Your task to perform on an android device: Is it going to rain tomorrow? Image 0: 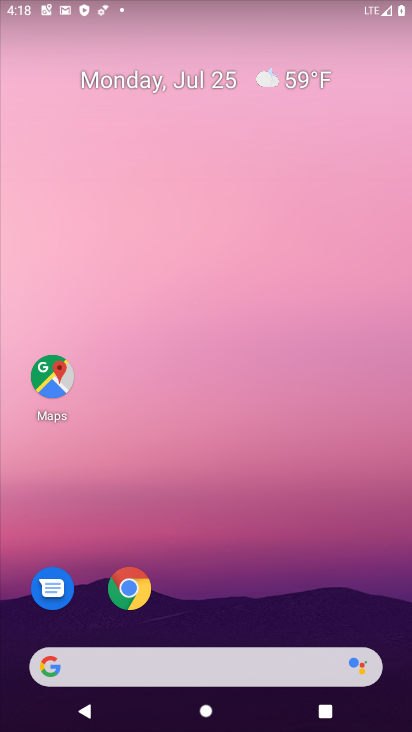
Step 0: click (131, 570)
Your task to perform on an android device: Is it going to rain tomorrow? Image 1: 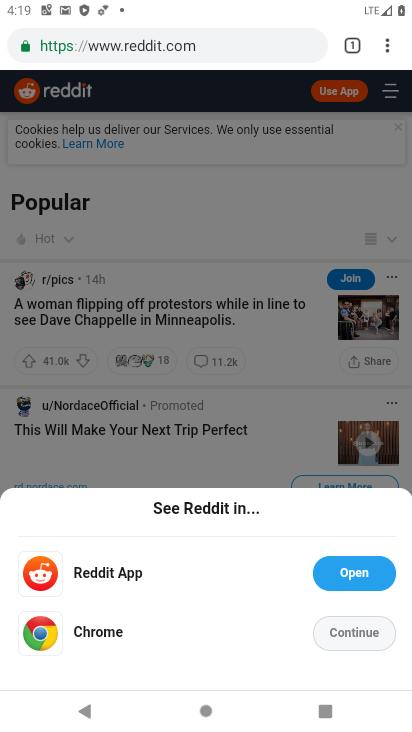
Step 1: click (170, 45)
Your task to perform on an android device: Is it going to rain tomorrow? Image 2: 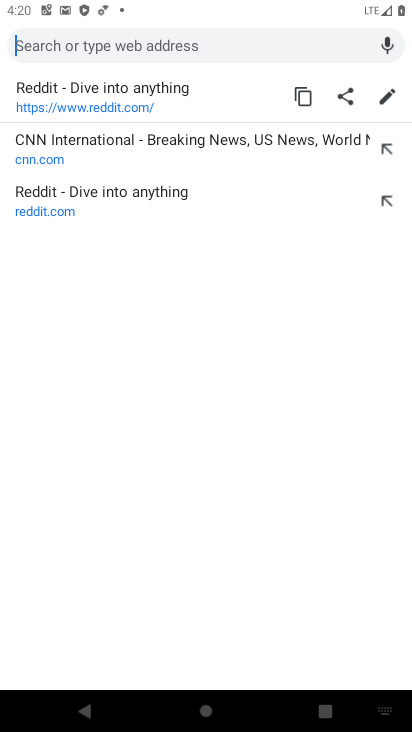
Step 2: type "Is it going to rain tomorrow?"
Your task to perform on an android device: Is it going to rain tomorrow? Image 3: 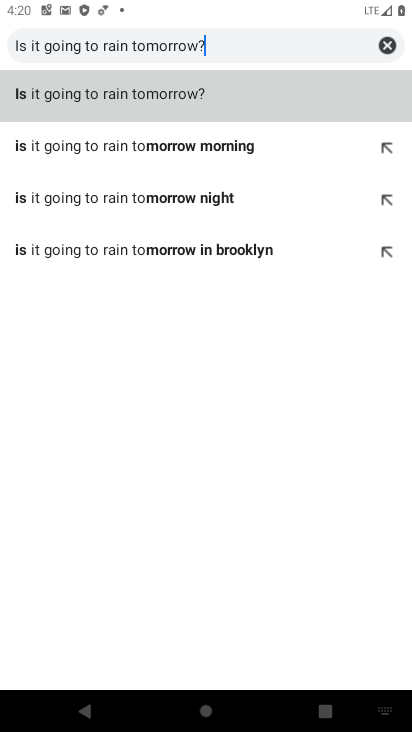
Step 3: click (134, 85)
Your task to perform on an android device: Is it going to rain tomorrow? Image 4: 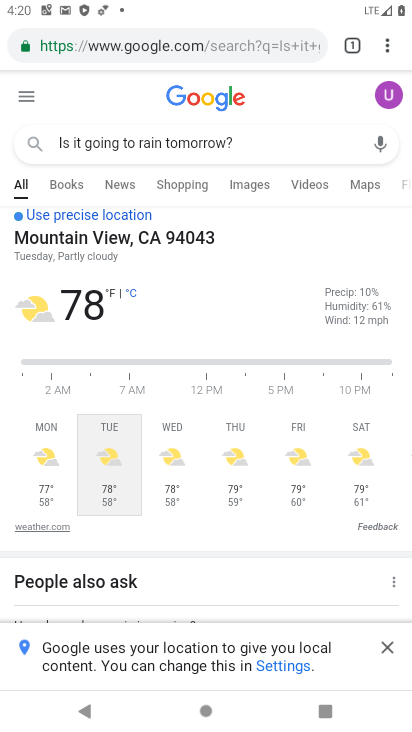
Step 4: drag from (27, 397) to (406, 442)
Your task to perform on an android device: Is it going to rain tomorrow? Image 5: 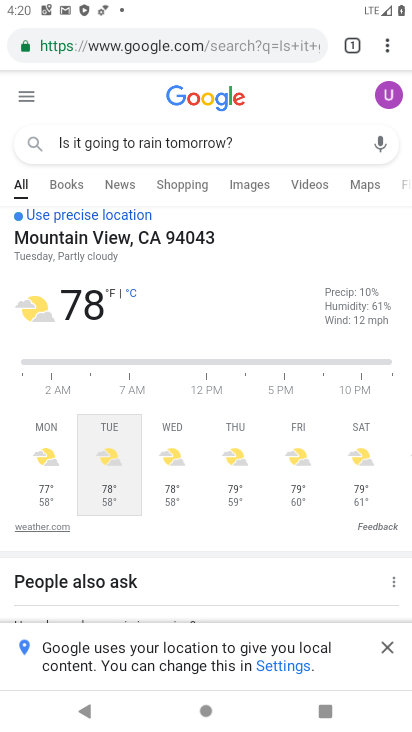
Step 5: press home button
Your task to perform on an android device: Is it going to rain tomorrow? Image 6: 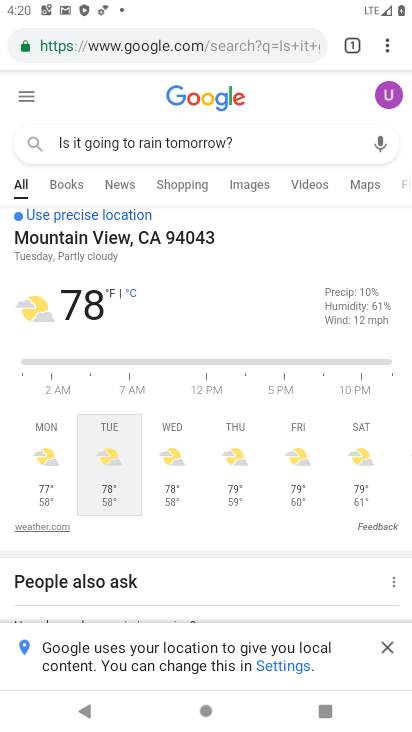
Step 6: drag from (406, 442) to (405, 587)
Your task to perform on an android device: Is it going to rain tomorrow? Image 7: 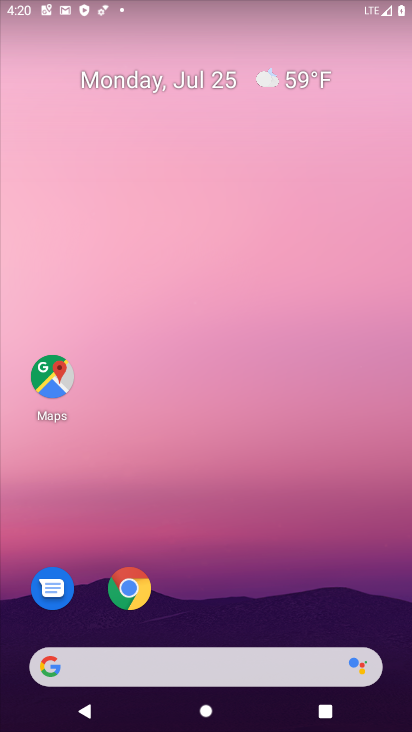
Step 7: drag from (223, 598) to (228, 32)
Your task to perform on an android device: Is it going to rain tomorrow? Image 8: 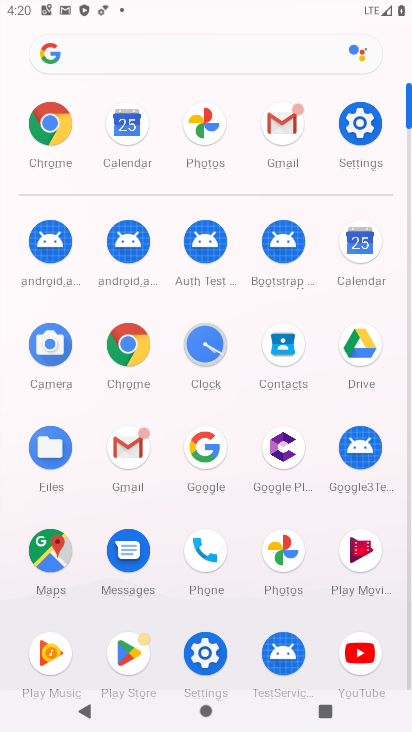
Step 8: click (124, 351)
Your task to perform on an android device: Is it going to rain tomorrow? Image 9: 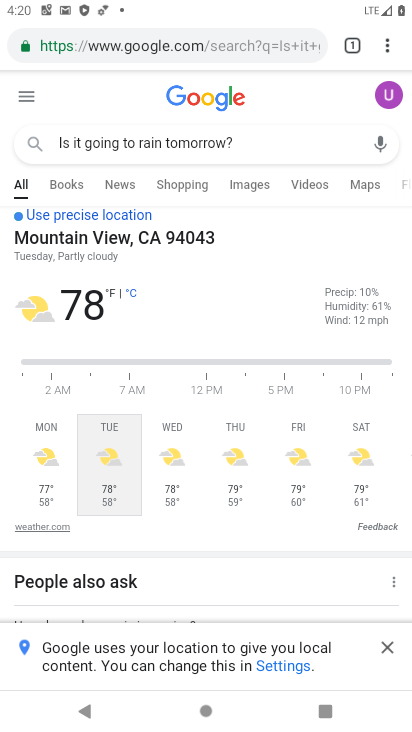
Step 9: task complete